Your task to perform on an android device: toggle wifi Image 0: 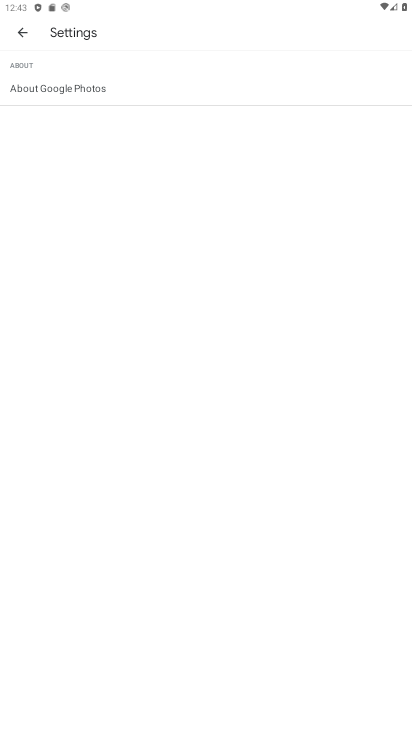
Step 0: press home button
Your task to perform on an android device: toggle wifi Image 1: 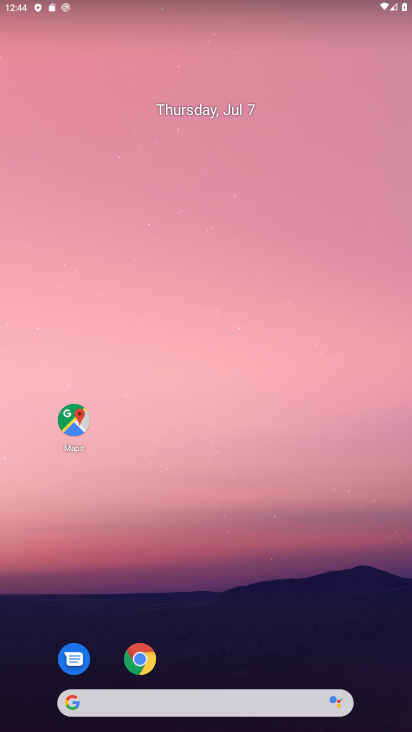
Step 1: drag from (224, 605) to (260, 232)
Your task to perform on an android device: toggle wifi Image 2: 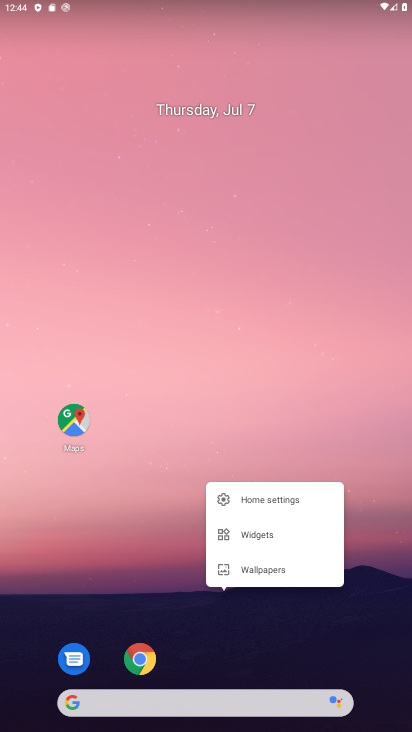
Step 2: click (243, 315)
Your task to perform on an android device: toggle wifi Image 3: 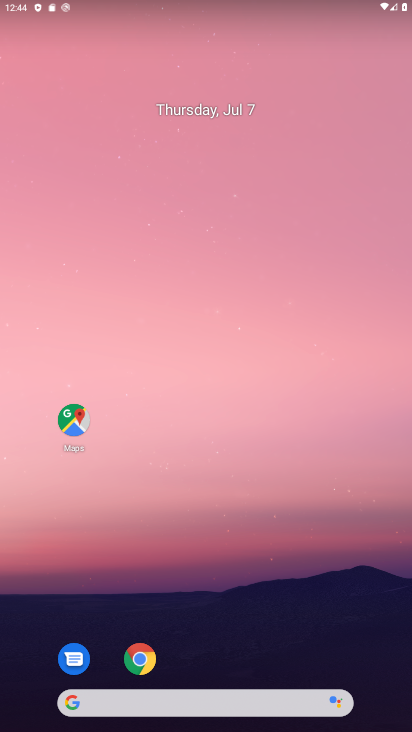
Step 3: drag from (223, 643) to (223, 42)
Your task to perform on an android device: toggle wifi Image 4: 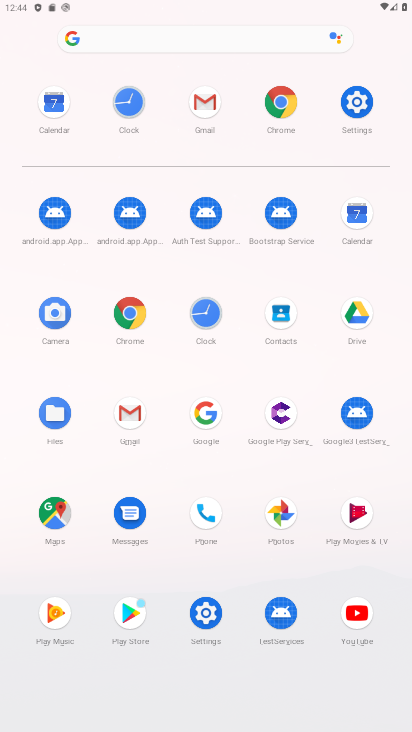
Step 4: click (357, 103)
Your task to perform on an android device: toggle wifi Image 5: 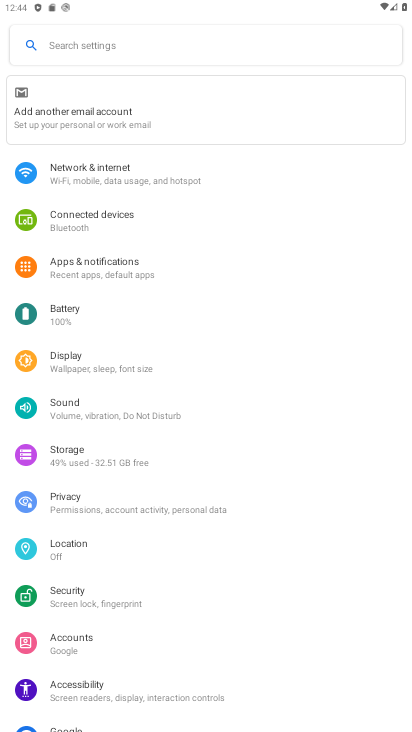
Step 5: click (81, 169)
Your task to perform on an android device: toggle wifi Image 6: 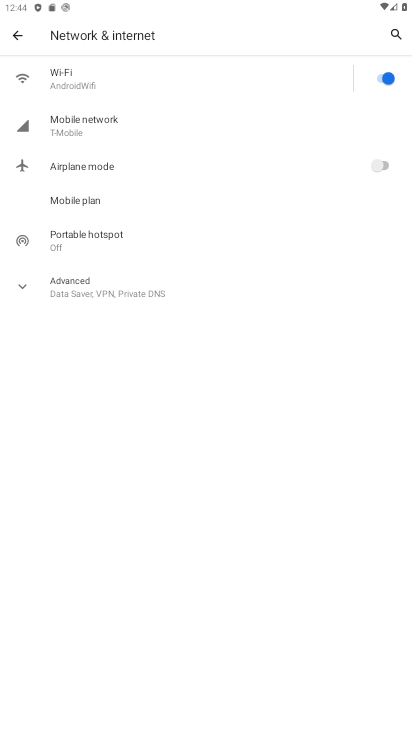
Step 6: click (392, 81)
Your task to perform on an android device: toggle wifi Image 7: 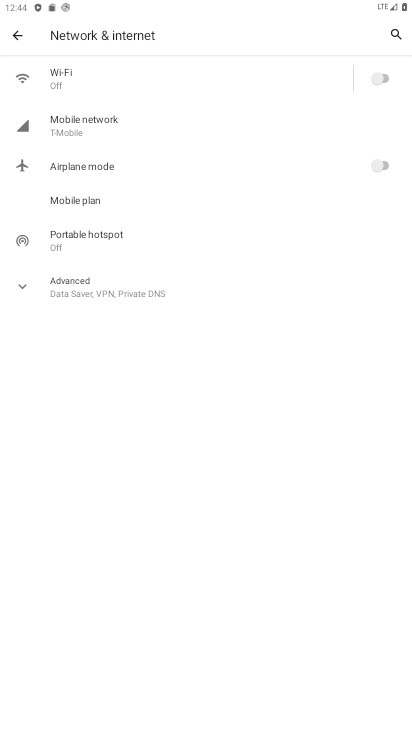
Step 7: task complete